Your task to perform on an android device: turn off sleep mode Image 0: 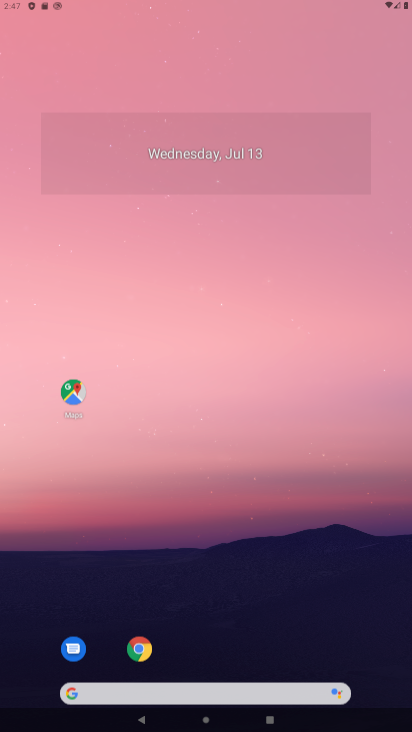
Step 0: press home button
Your task to perform on an android device: turn off sleep mode Image 1: 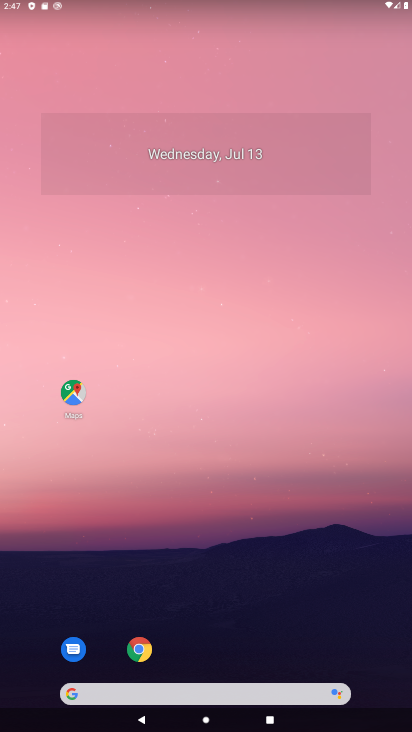
Step 1: drag from (228, 660) to (235, 10)
Your task to perform on an android device: turn off sleep mode Image 2: 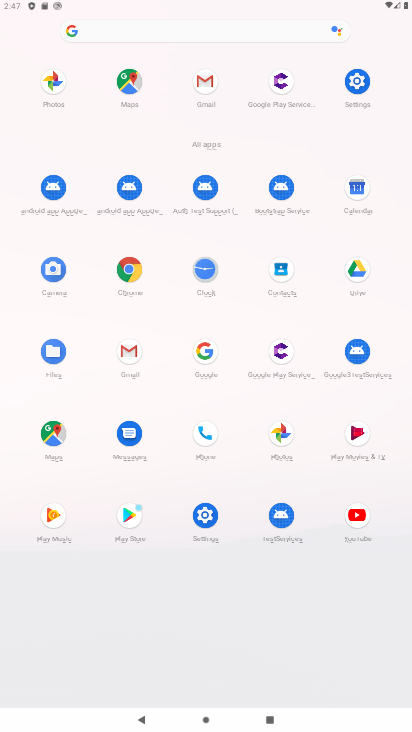
Step 2: click (355, 75)
Your task to perform on an android device: turn off sleep mode Image 3: 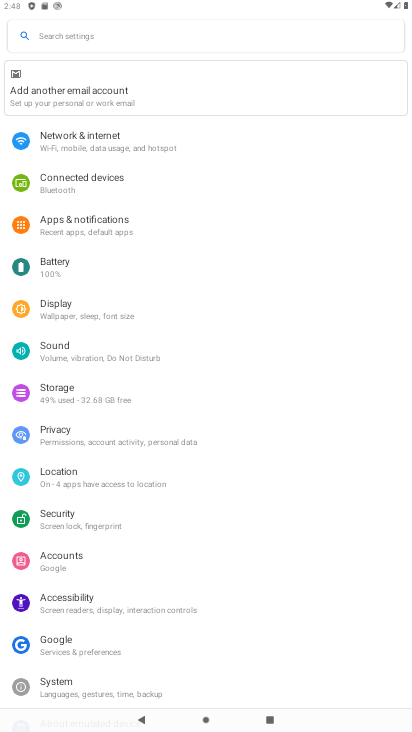
Step 3: click (75, 307)
Your task to perform on an android device: turn off sleep mode Image 4: 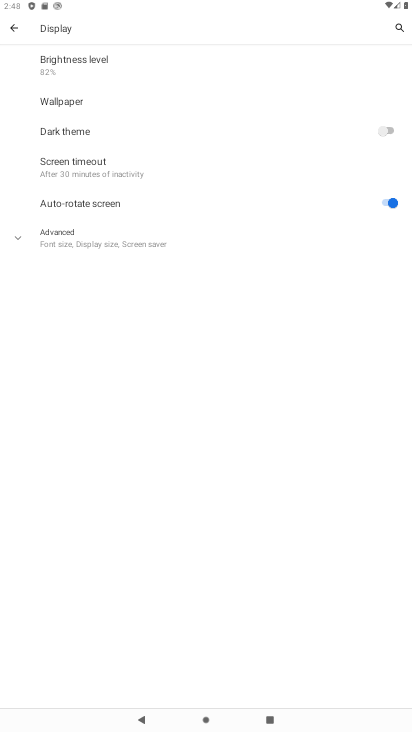
Step 4: task complete